Your task to perform on an android device: delete a single message in the gmail app Image 0: 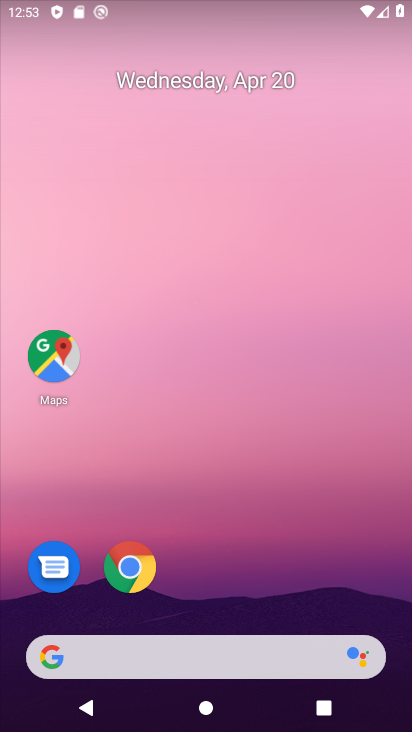
Step 0: drag from (288, 584) to (326, 66)
Your task to perform on an android device: delete a single message in the gmail app Image 1: 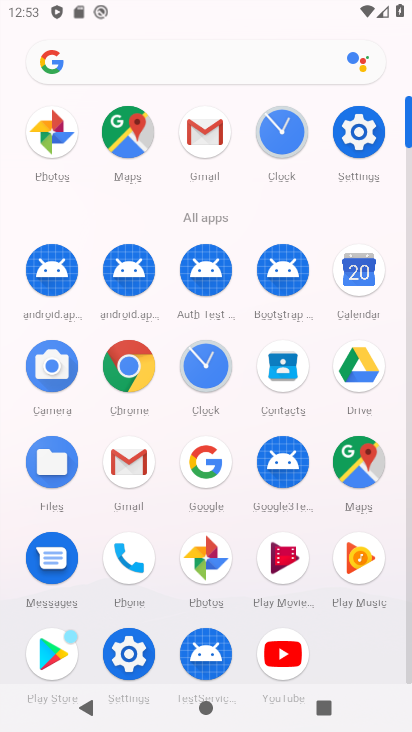
Step 1: click (131, 454)
Your task to perform on an android device: delete a single message in the gmail app Image 2: 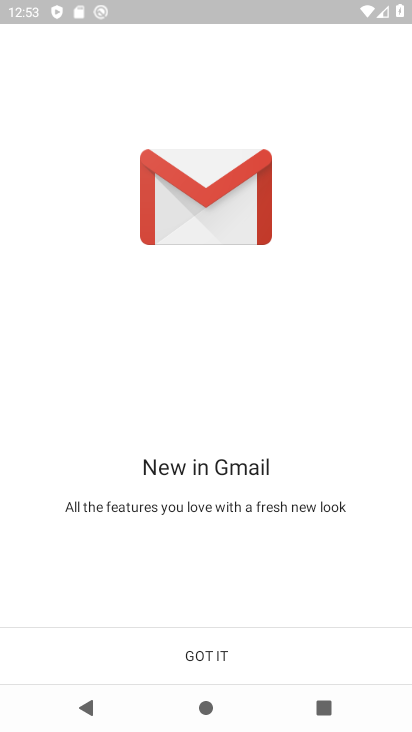
Step 2: click (201, 644)
Your task to perform on an android device: delete a single message in the gmail app Image 3: 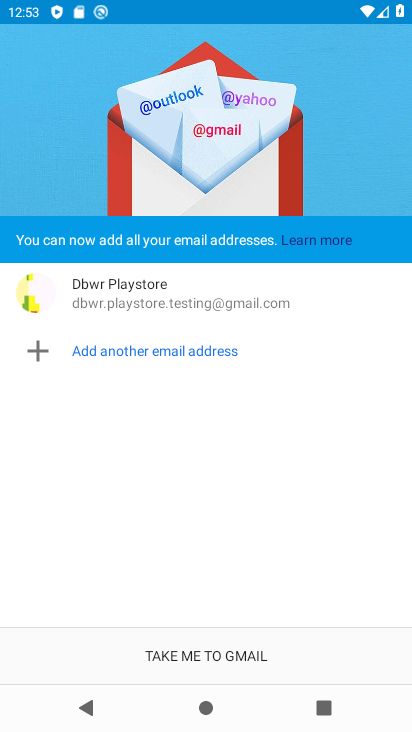
Step 3: click (184, 651)
Your task to perform on an android device: delete a single message in the gmail app Image 4: 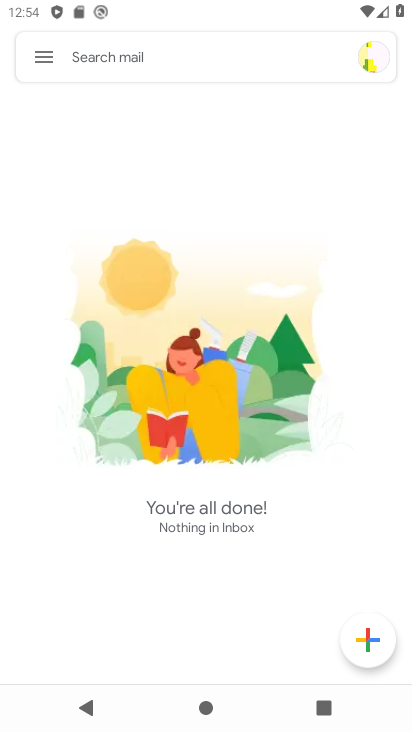
Step 4: task complete